Your task to perform on an android device: change alarm snooze length Image 0: 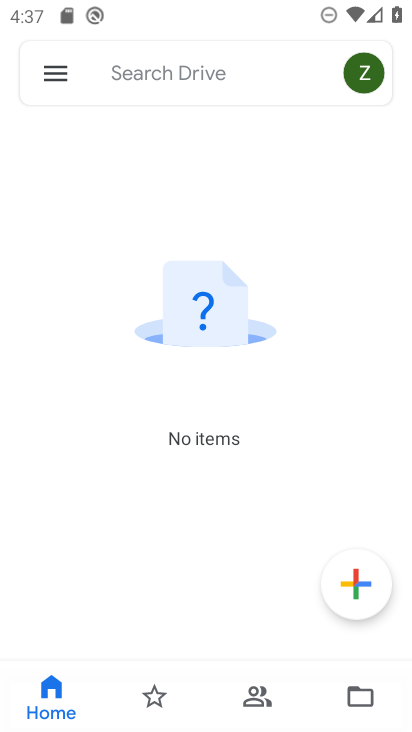
Step 0: press home button
Your task to perform on an android device: change alarm snooze length Image 1: 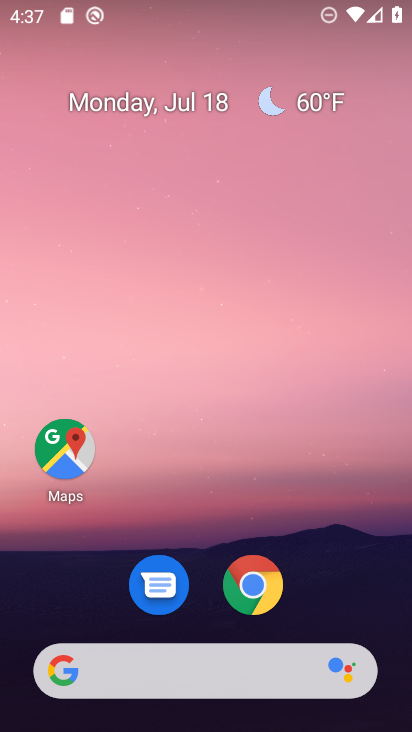
Step 1: drag from (303, 538) to (244, 83)
Your task to perform on an android device: change alarm snooze length Image 2: 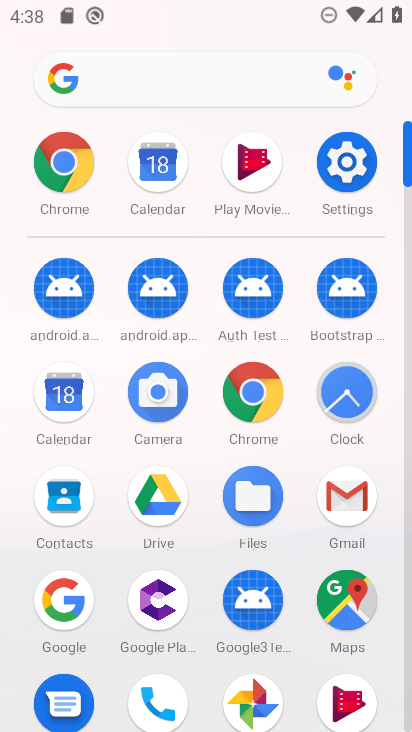
Step 2: click (348, 393)
Your task to perform on an android device: change alarm snooze length Image 3: 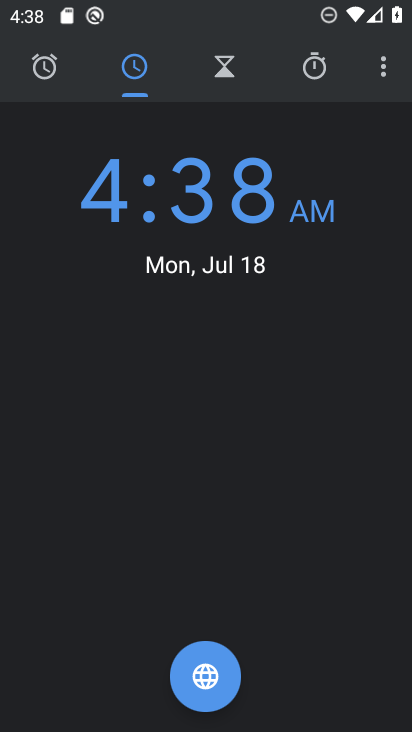
Step 3: click (387, 67)
Your task to perform on an android device: change alarm snooze length Image 4: 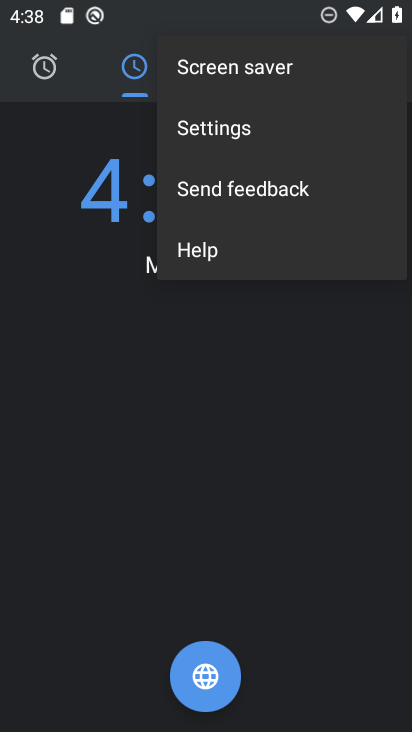
Step 4: click (308, 149)
Your task to perform on an android device: change alarm snooze length Image 5: 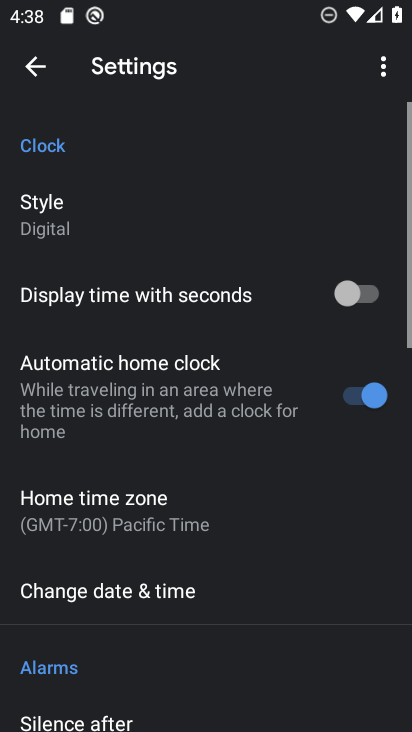
Step 5: drag from (105, 560) to (167, 118)
Your task to perform on an android device: change alarm snooze length Image 6: 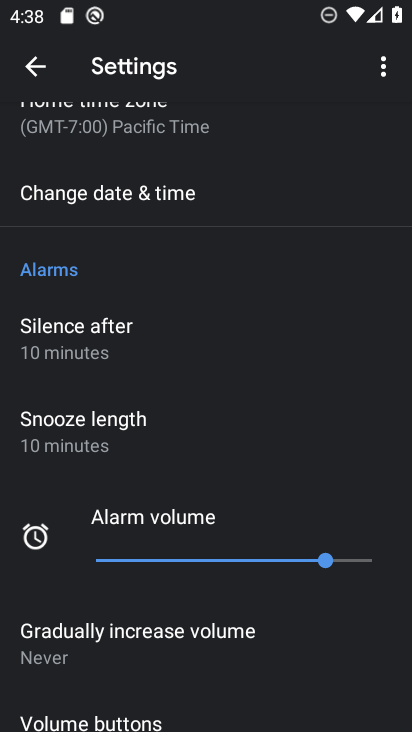
Step 6: click (141, 421)
Your task to perform on an android device: change alarm snooze length Image 7: 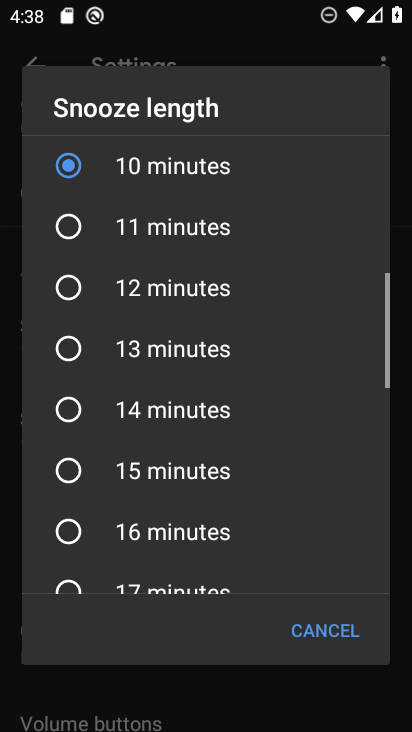
Step 7: click (82, 290)
Your task to perform on an android device: change alarm snooze length Image 8: 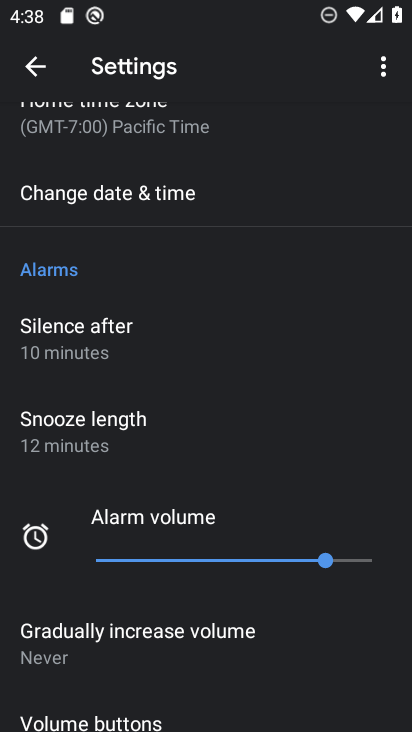
Step 8: task complete